Your task to perform on an android device: turn off notifications settings in the gmail app Image 0: 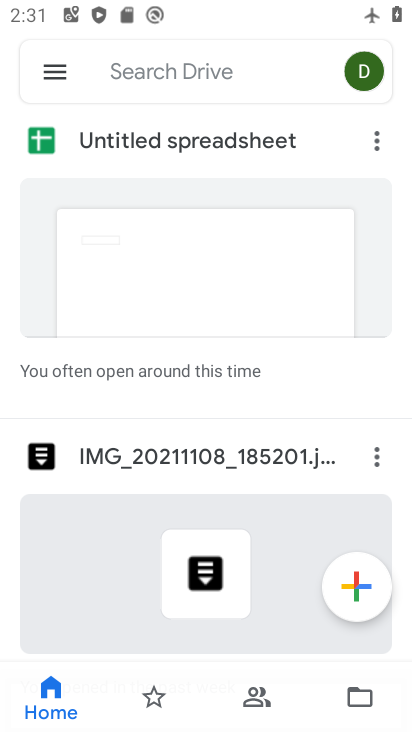
Step 0: press home button
Your task to perform on an android device: turn off notifications settings in the gmail app Image 1: 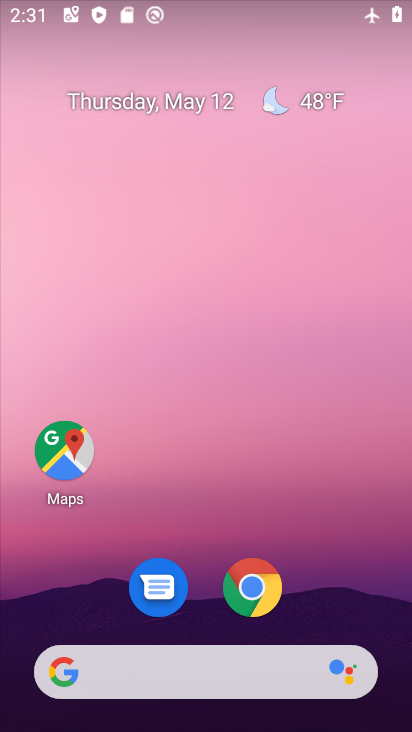
Step 1: drag from (196, 645) to (286, 207)
Your task to perform on an android device: turn off notifications settings in the gmail app Image 2: 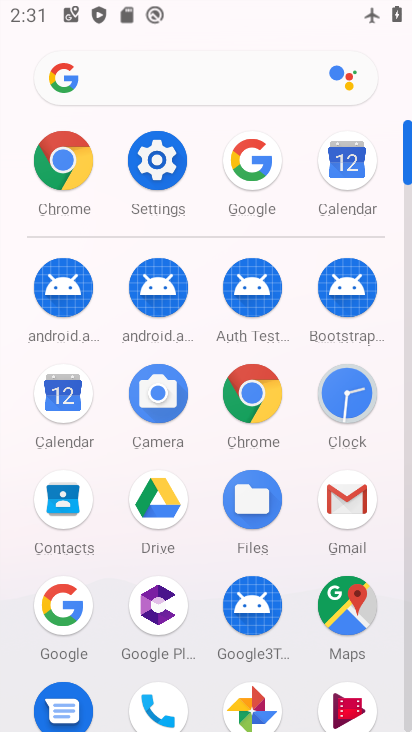
Step 2: click (353, 508)
Your task to perform on an android device: turn off notifications settings in the gmail app Image 3: 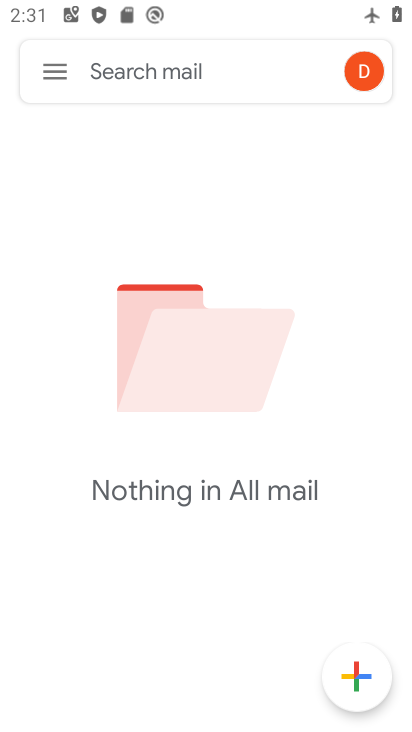
Step 3: click (55, 81)
Your task to perform on an android device: turn off notifications settings in the gmail app Image 4: 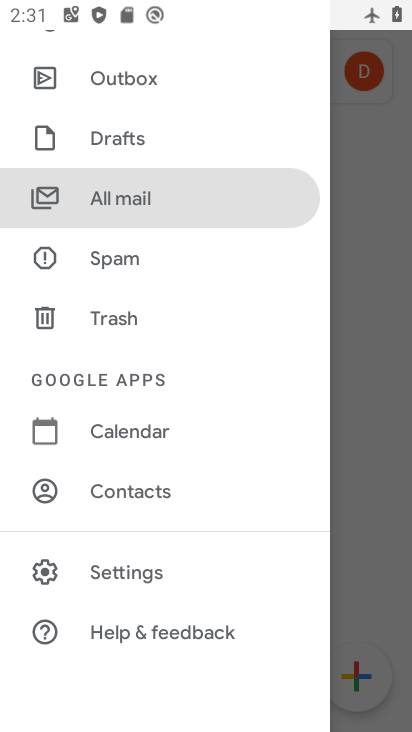
Step 4: click (144, 564)
Your task to perform on an android device: turn off notifications settings in the gmail app Image 5: 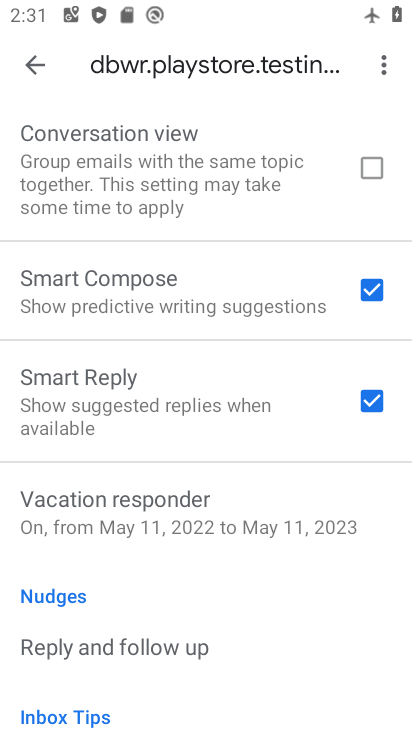
Step 5: click (47, 74)
Your task to perform on an android device: turn off notifications settings in the gmail app Image 6: 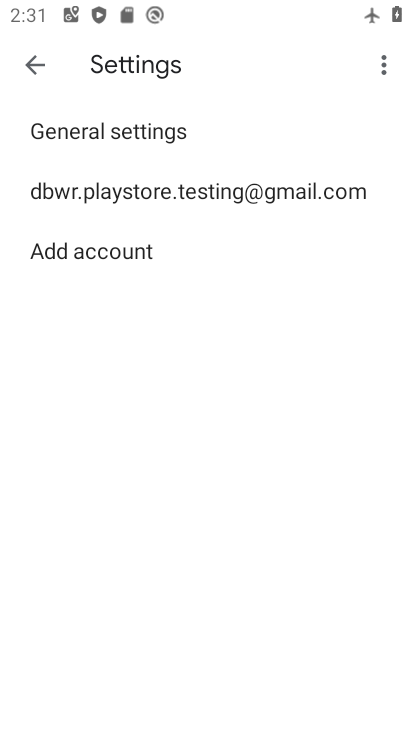
Step 6: click (120, 129)
Your task to perform on an android device: turn off notifications settings in the gmail app Image 7: 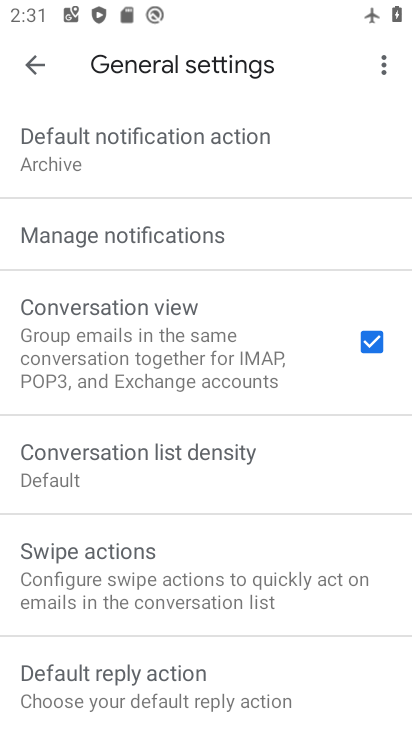
Step 7: click (130, 251)
Your task to perform on an android device: turn off notifications settings in the gmail app Image 8: 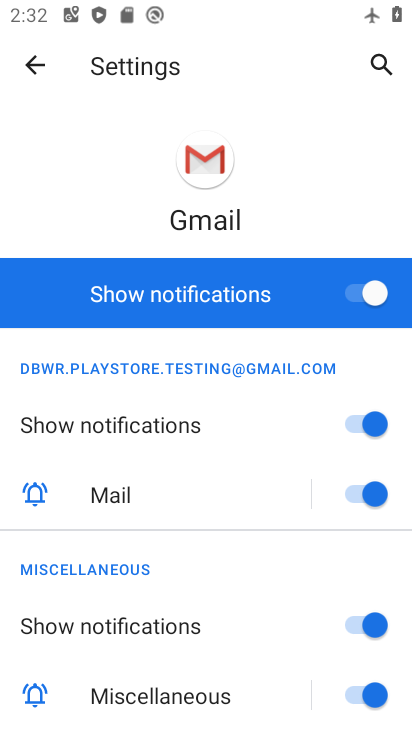
Step 8: click (346, 289)
Your task to perform on an android device: turn off notifications settings in the gmail app Image 9: 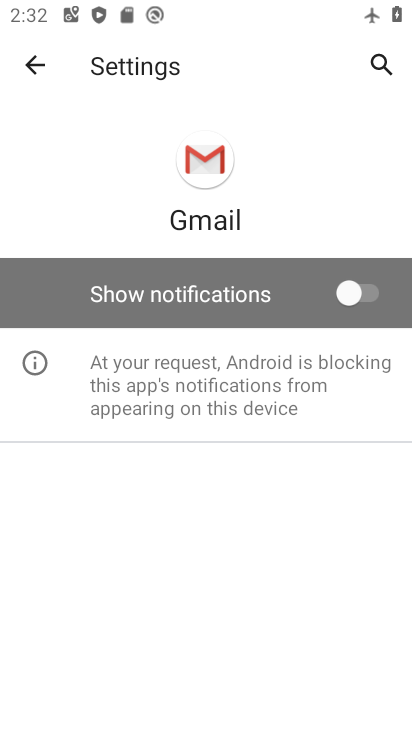
Step 9: task complete